Your task to perform on an android device: Go to internet settings Image 0: 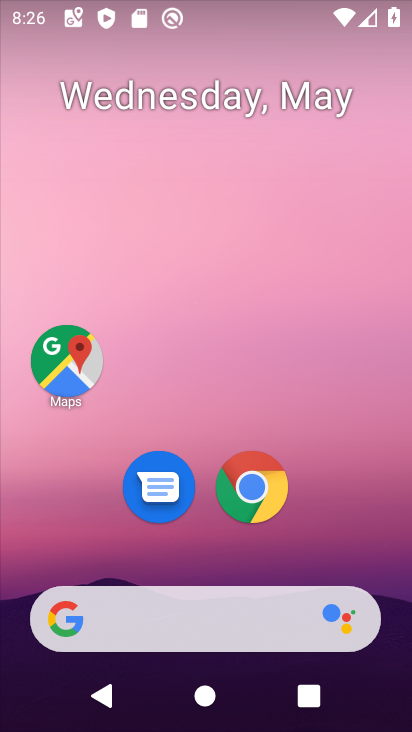
Step 0: drag from (351, 524) to (306, 222)
Your task to perform on an android device: Go to internet settings Image 1: 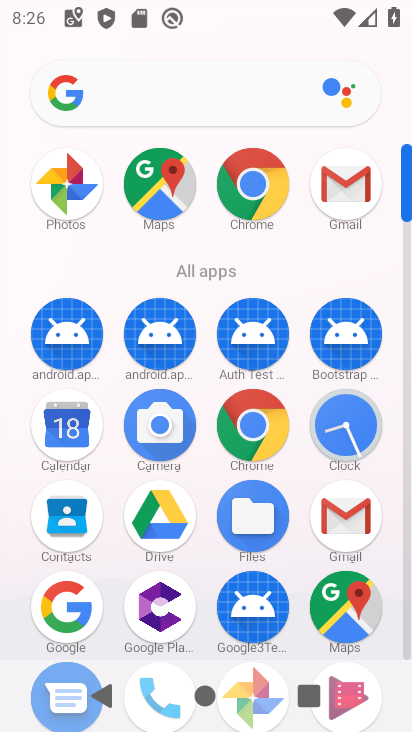
Step 1: drag from (201, 556) to (251, 273)
Your task to perform on an android device: Go to internet settings Image 2: 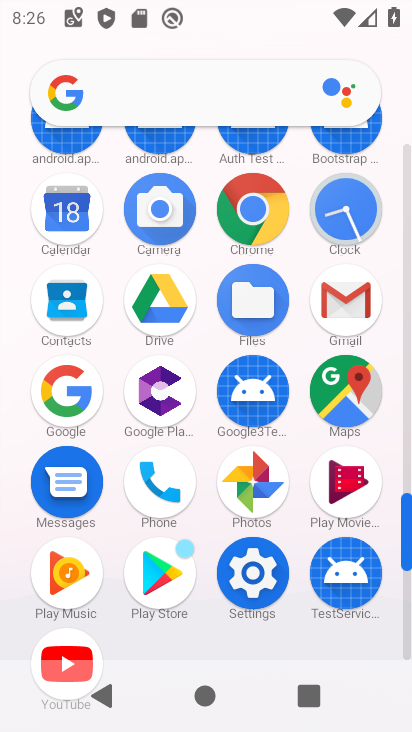
Step 2: click (254, 576)
Your task to perform on an android device: Go to internet settings Image 3: 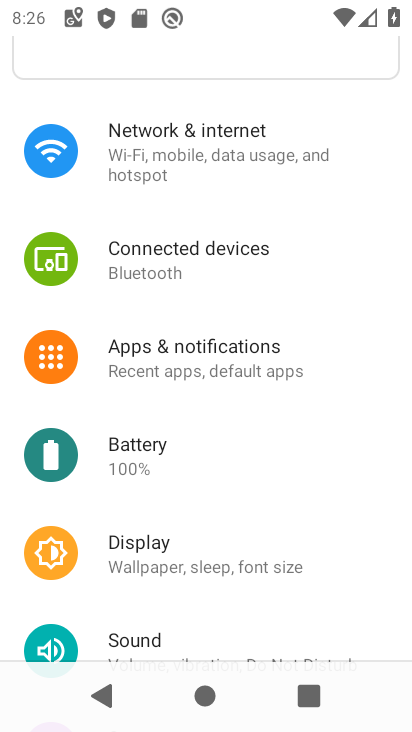
Step 3: click (177, 133)
Your task to perform on an android device: Go to internet settings Image 4: 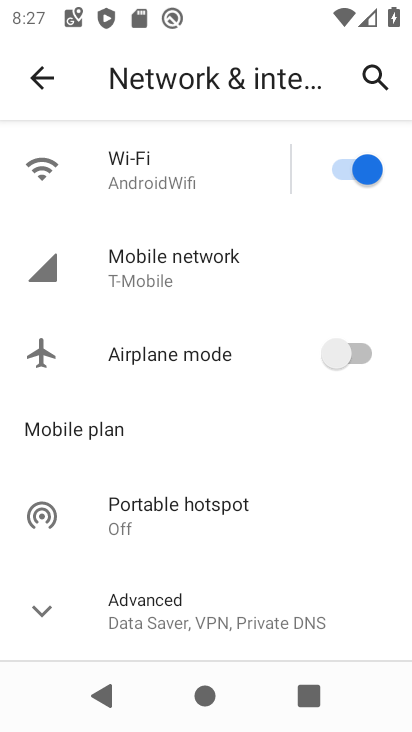
Step 4: task complete